Your task to perform on an android device: Go to network settings Image 0: 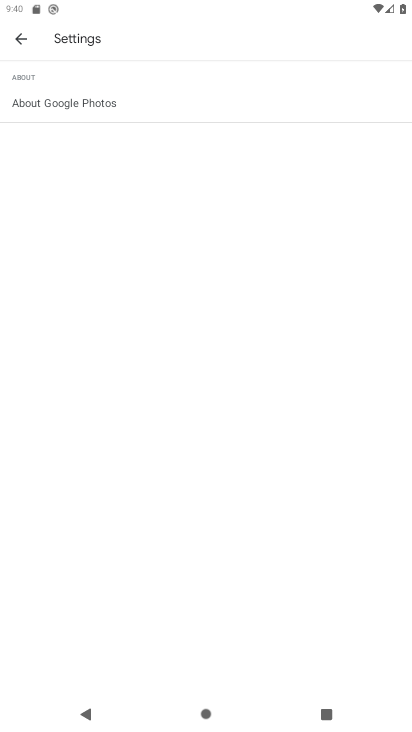
Step 0: press home button
Your task to perform on an android device: Go to network settings Image 1: 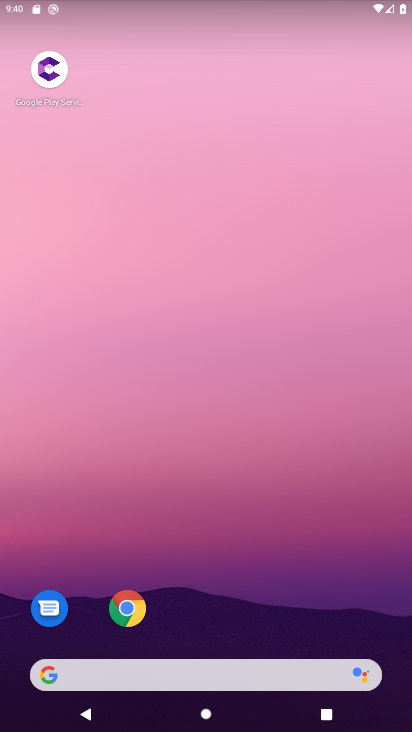
Step 1: drag from (228, 622) to (188, 2)
Your task to perform on an android device: Go to network settings Image 2: 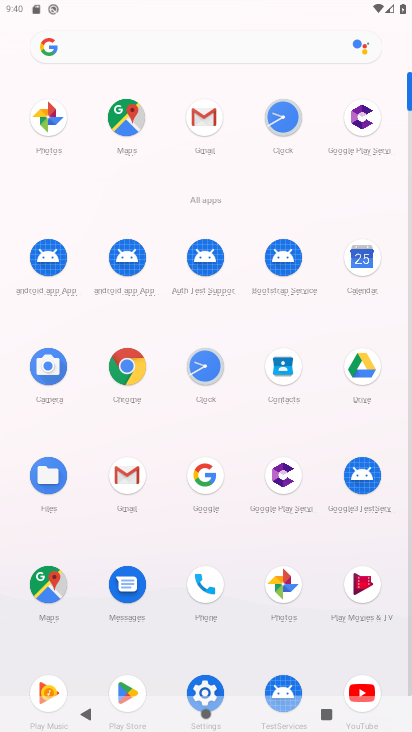
Step 2: click (207, 675)
Your task to perform on an android device: Go to network settings Image 3: 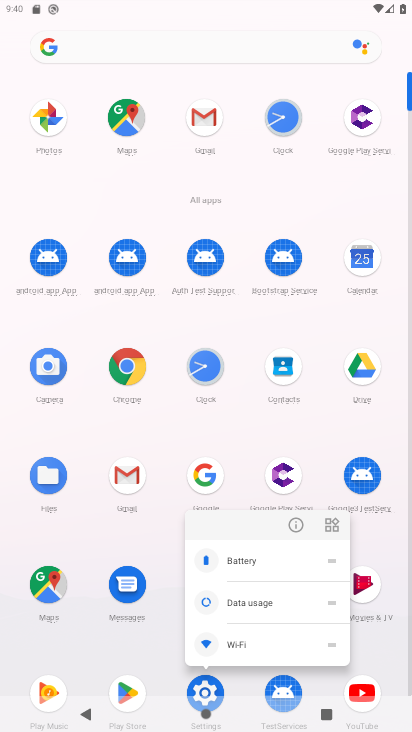
Step 3: click (209, 679)
Your task to perform on an android device: Go to network settings Image 4: 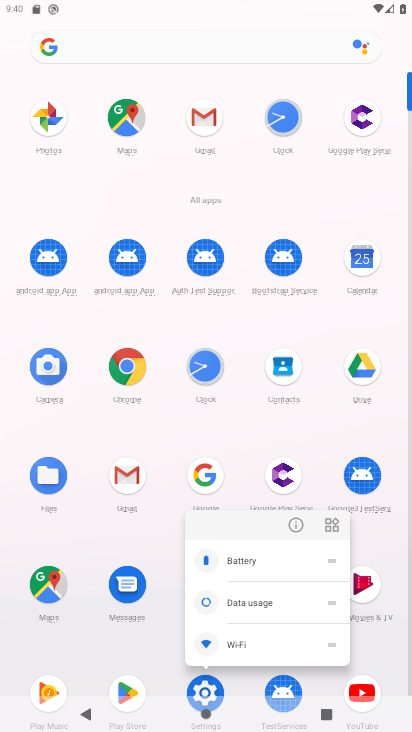
Step 4: click (205, 678)
Your task to perform on an android device: Go to network settings Image 5: 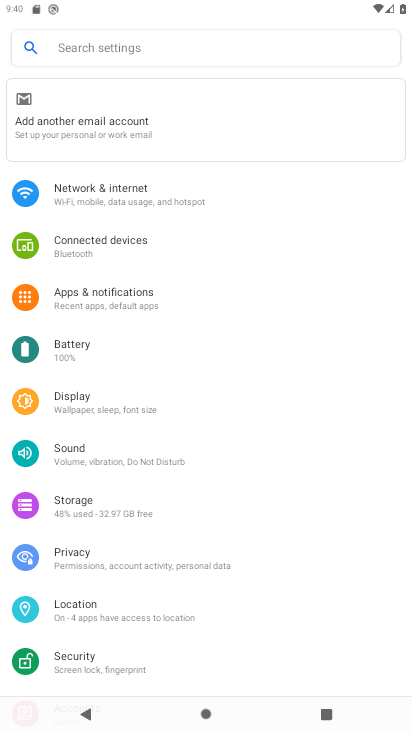
Step 5: click (140, 185)
Your task to perform on an android device: Go to network settings Image 6: 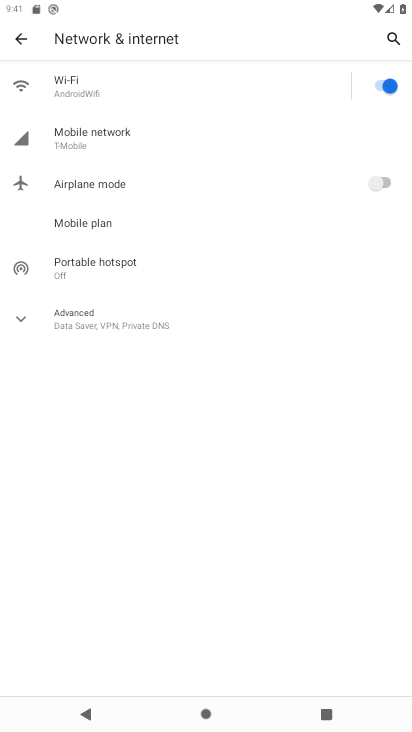
Step 6: click (49, 311)
Your task to perform on an android device: Go to network settings Image 7: 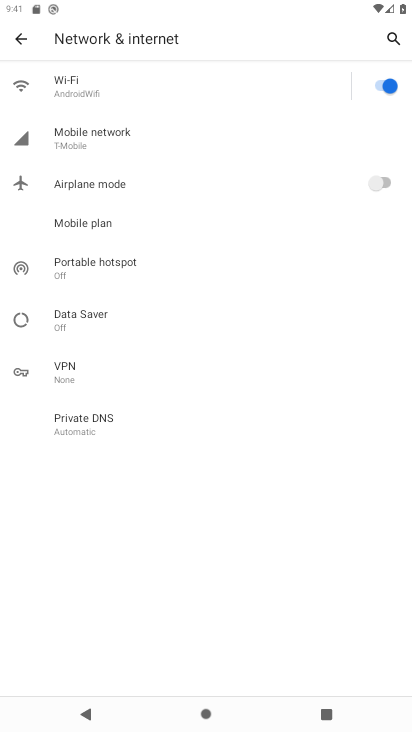
Step 7: task complete